Your task to perform on an android device: Open Chrome and go to settings Image 0: 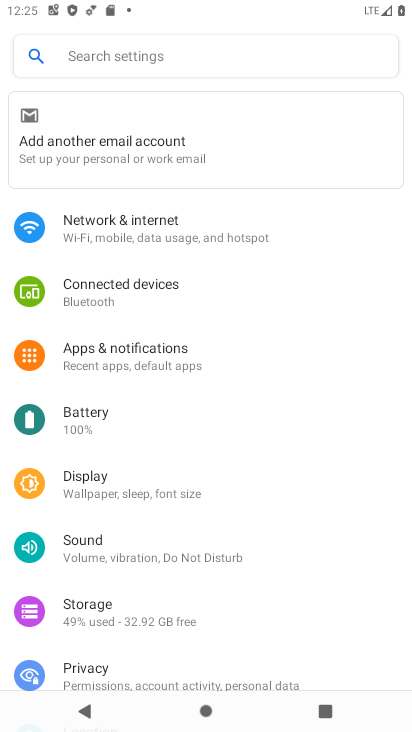
Step 0: press home button
Your task to perform on an android device: Open Chrome and go to settings Image 1: 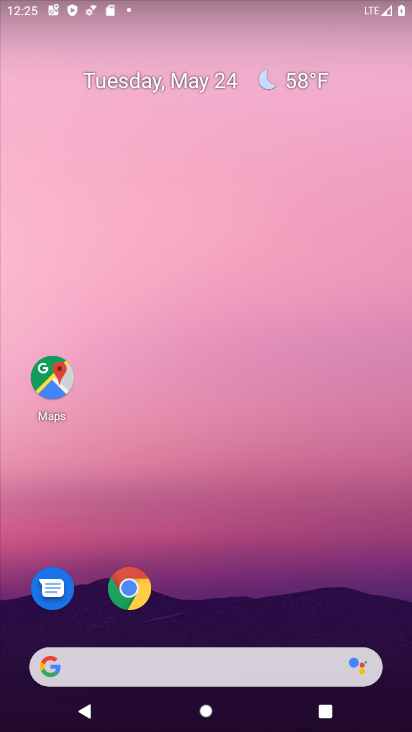
Step 1: click (126, 589)
Your task to perform on an android device: Open Chrome and go to settings Image 2: 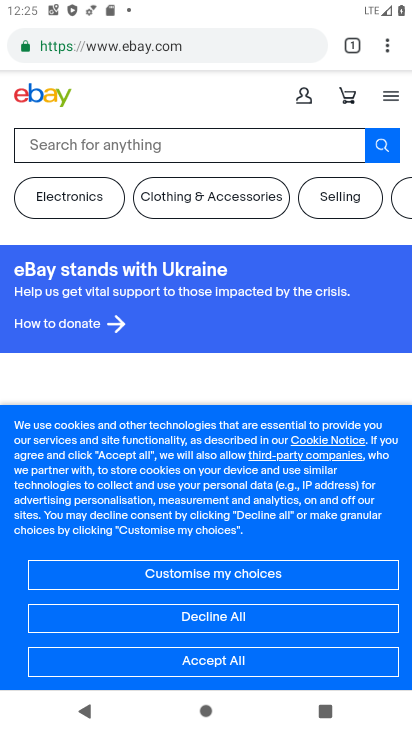
Step 2: click (388, 55)
Your task to perform on an android device: Open Chrome and go to settings Image 3: 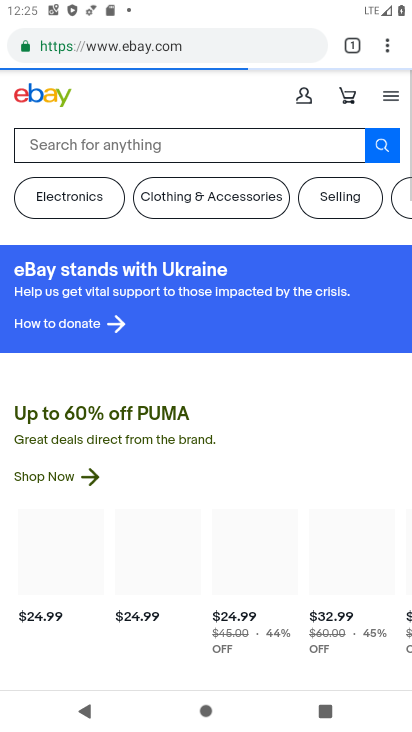
Step 3: click (388, 49)
Your task to perform on an android device: Open Chrome and go to settings Image 4: 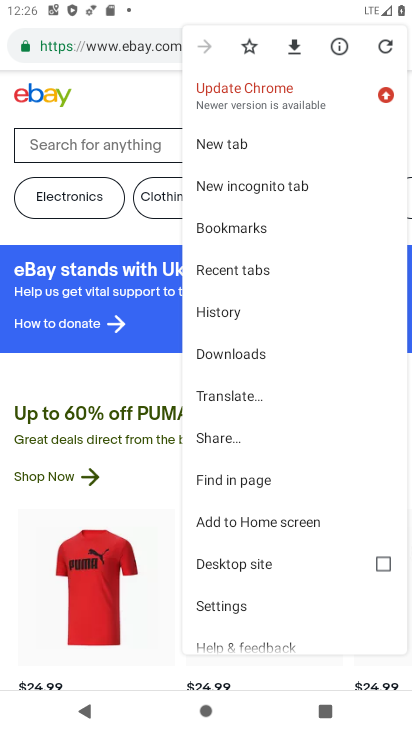
Step 4: click (225, 609)
Your task to perform on an android device: Open Chrome and go to settings Image 5: 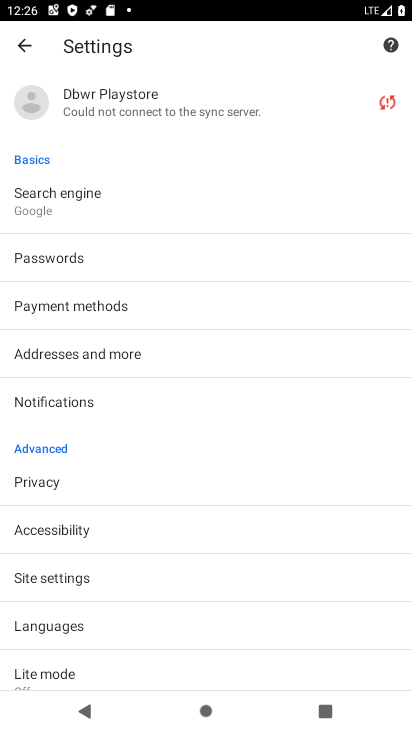
Step 5: task complete